Your task to perform on an android device: check google app version Image 0: 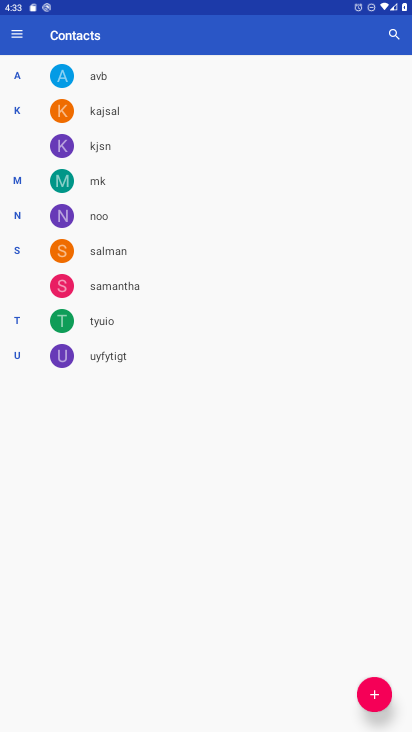
Step 0: press home button
Your task to perform on an android device: check google app version Image 1: 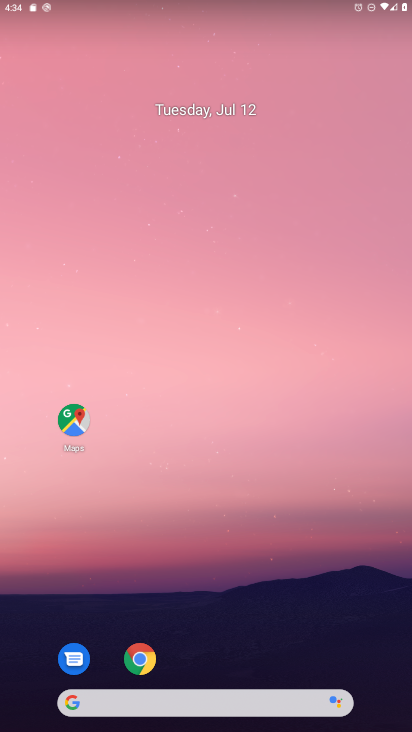
Step 1: drag from (178, 633) to (212, 2)
Your task to perform on an android device: check google app version Image 2: 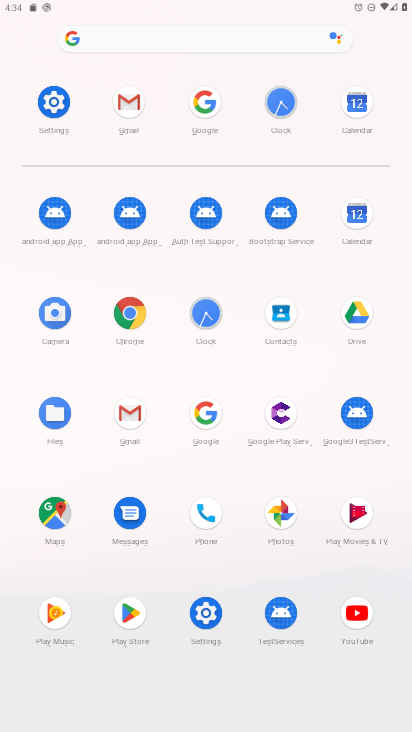
Step 2: click (195, 425)
Your task to perform on an android device: check google app version Image 3: 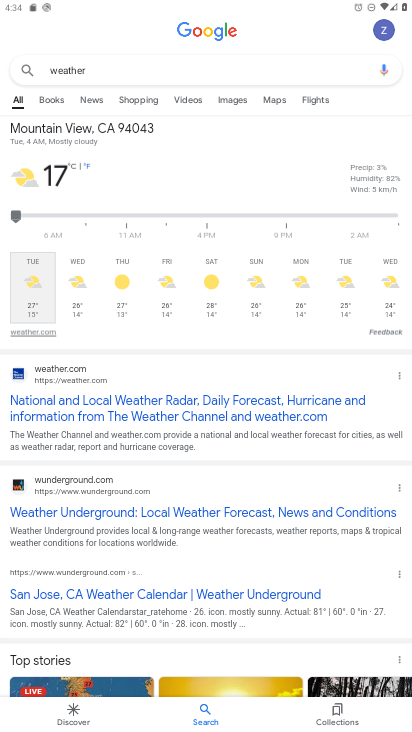
Step 3: click (379, 36)
Your task to perform on an android device: check google app version Image 4: 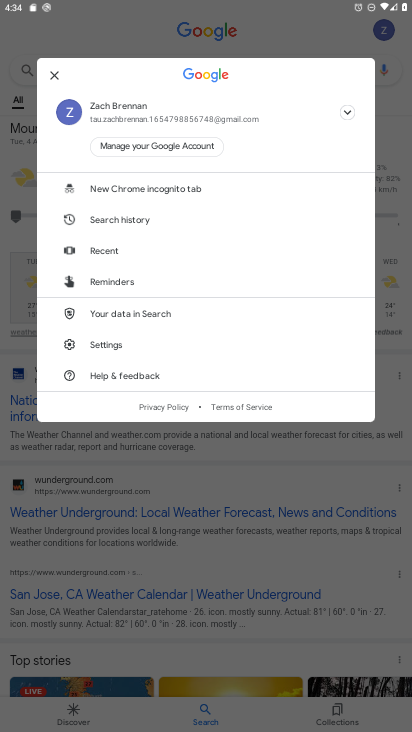
Step 4: click (138, 346)
Your task to perform on an android device: check google app version Image 5: 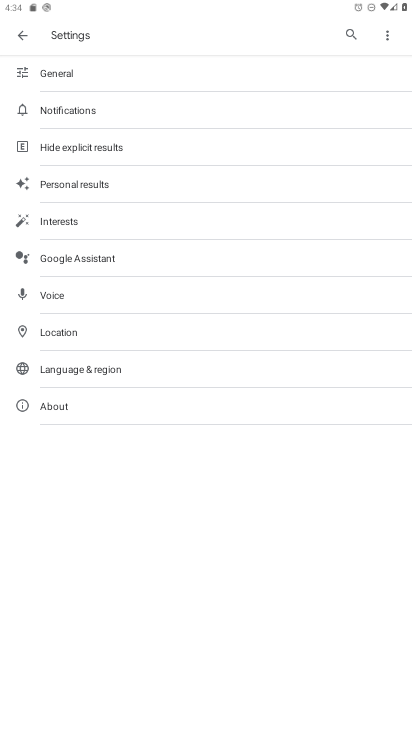
Step 5: click (99, 410)
Your task to perform on an android device: check google app version Image 6: 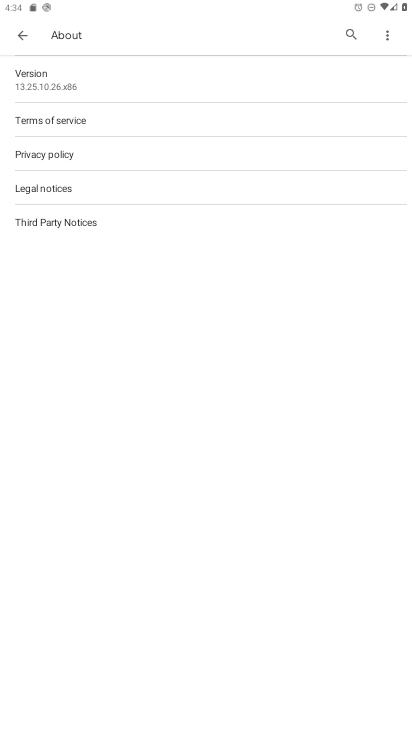
Step 6: task complete